Your task to perform on an android device: open a bookmark in the chrome app Image 0: 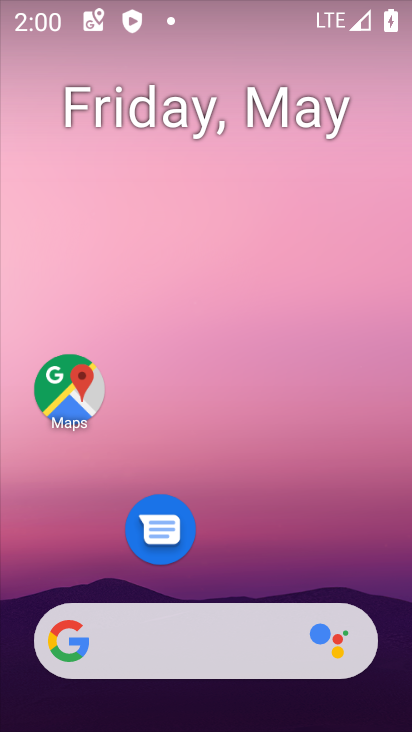
Step 0: click (239, 345)
Your task to perform on an android device: open a bookmark in the chrome app Image 1: 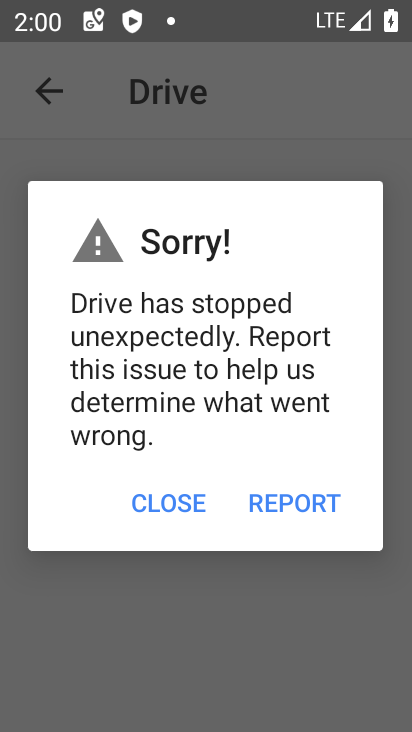
Step 1: drag from (233, 576) to (295, 221)
Your task to perform on an android device: open a bookmark in the chrome app Image 2: 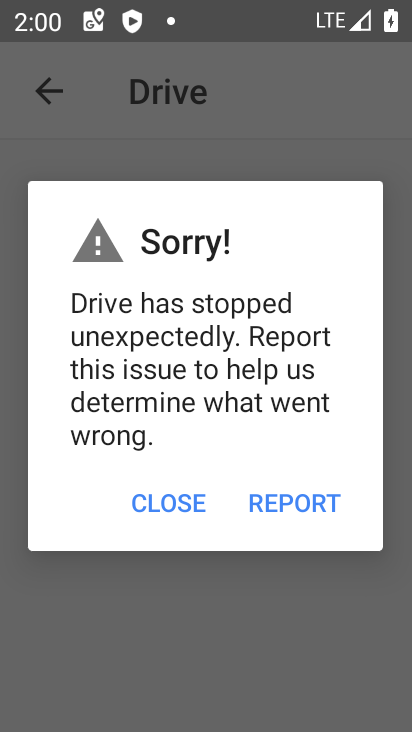
Step 2: press home button
Your task to perform on an android device: open a bookmark in the chrome app Image 3: 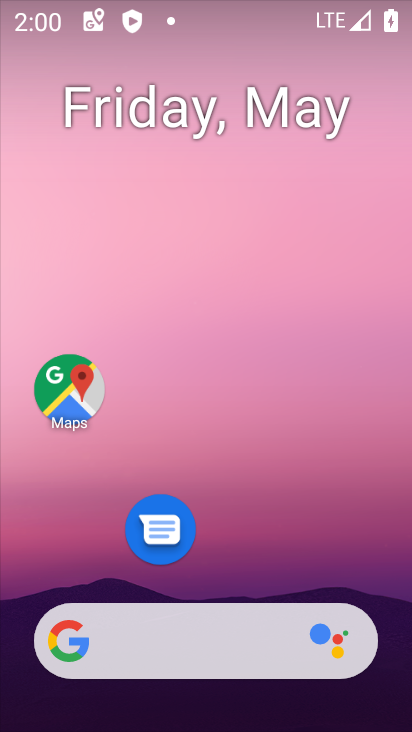
Step 3: click (245, 204)
Your task to perform on an android device: open a bookmark in the chrome app Image 4: 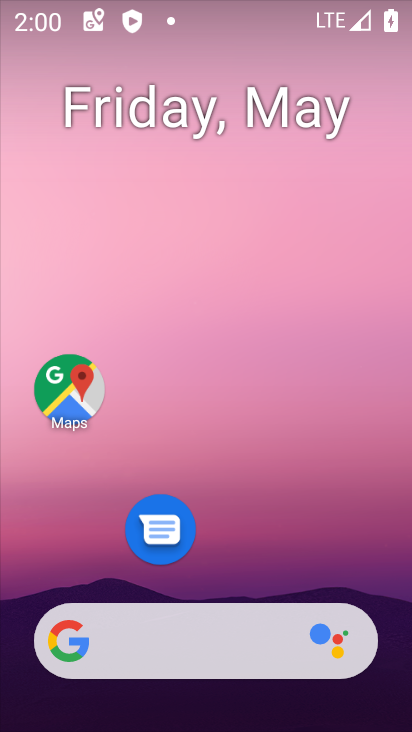
Step 4: drag from (200, 578) to (216, 157)
Your task to perform on an android device: open a bookmark in the chrome app Image 5: 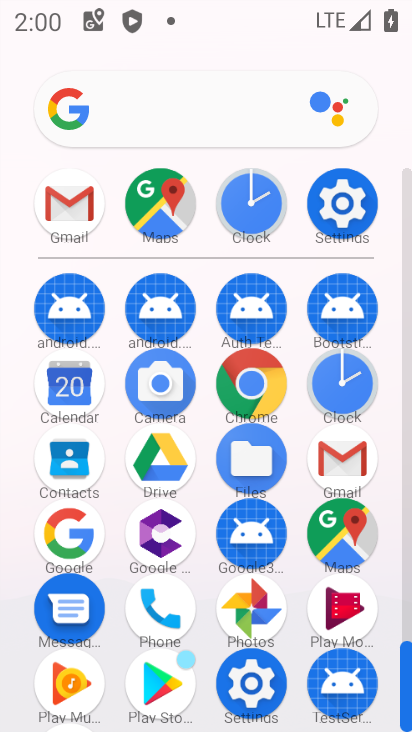
Step 5: click (252, 386)
Your task to perform on an android device: open a bookmark in the chrome app Image 6: 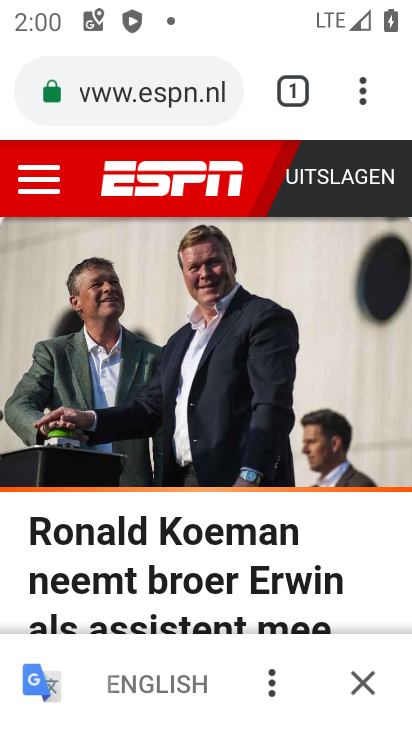
Step 6: click (363, 89)
Your task to perform on an android device: open a bookmark in the chrome app Image 7: 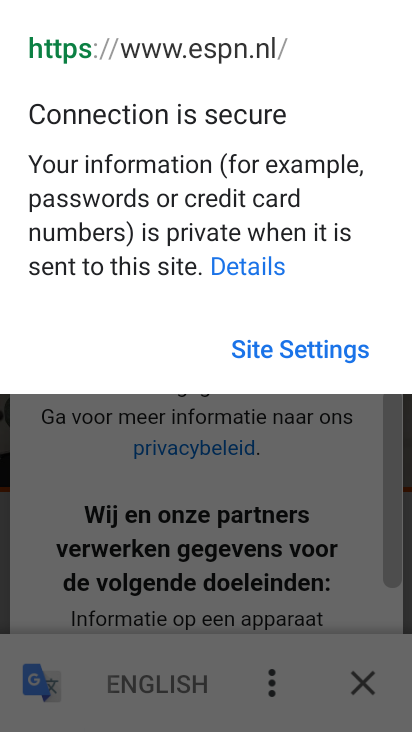
Step 7: press back button
Your task to perform on an android device: open a bookmark in the chrome app Image 8: 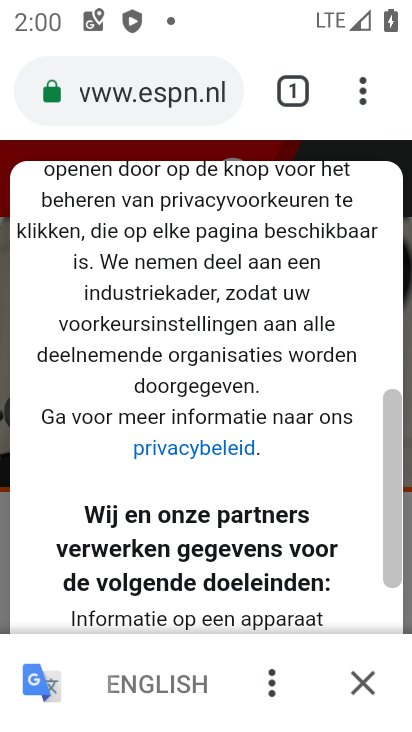
Step 8: click (363, 90)
Your task to perform on an android device: open a bookmark in the chrome app Image 9: 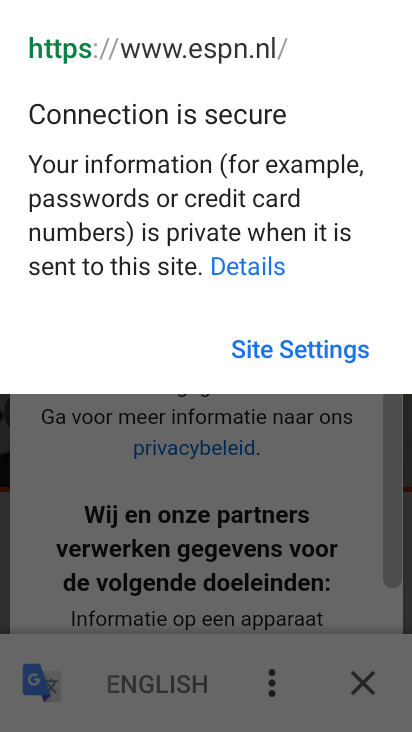
Step 9: press back button
Your task to perform on an android device: open a bookmark in the chrome app Image 10: 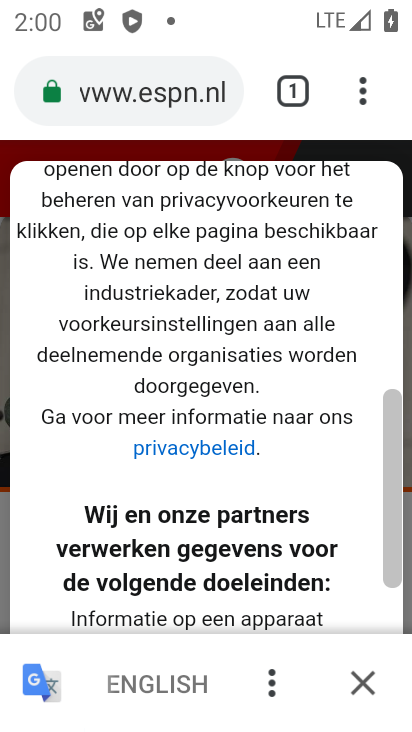
Step 10: click (362, 100)
Your task to perform on an android device: open a bookmark in the chrome app Image 11: 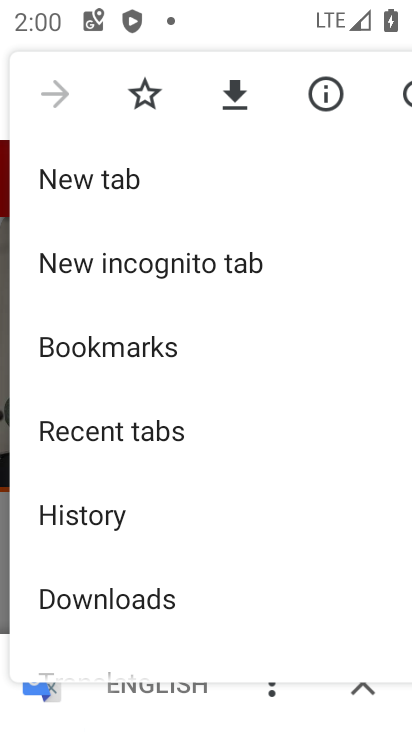
Step 11: drag from (212, 537) to (232, 210)
Your task to perform on an android device: open a bookmark in the chrome app Image 12: 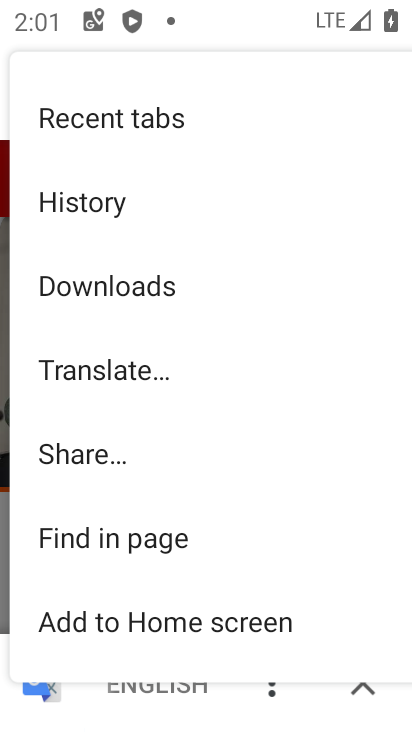
Step 12: drag from (128, 131) to (243, 518)
Your task to perform on an android device: open a bookmark in the chrome app Image 13: 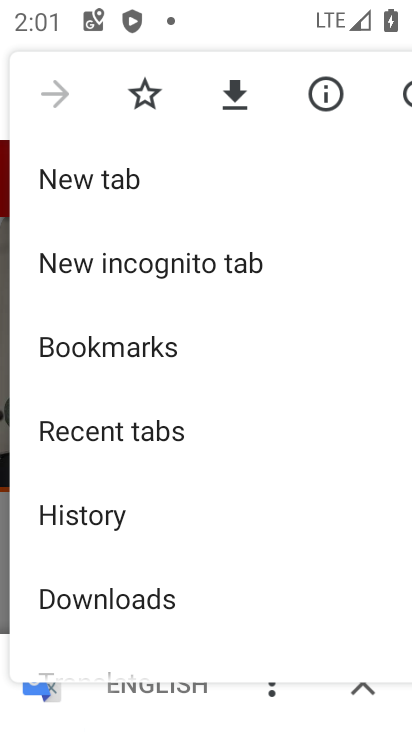
Step 13: click (153, 347)
Your task to perform on an android device: open a bookmark in the chrome app Image 14: 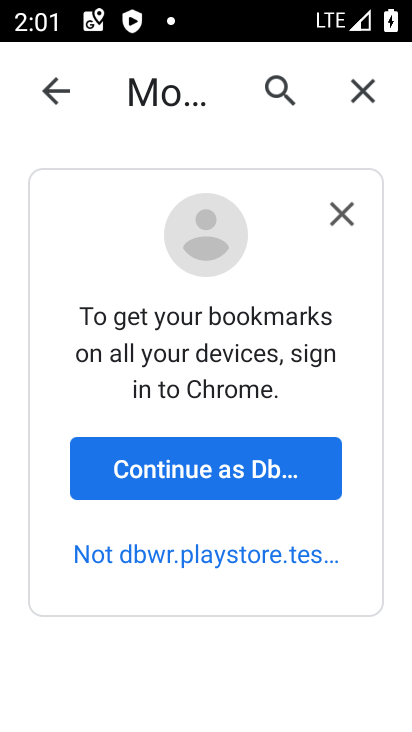
Step 14: task complete